Your task to perform on an android device: open sync settings in chrome Image 0: 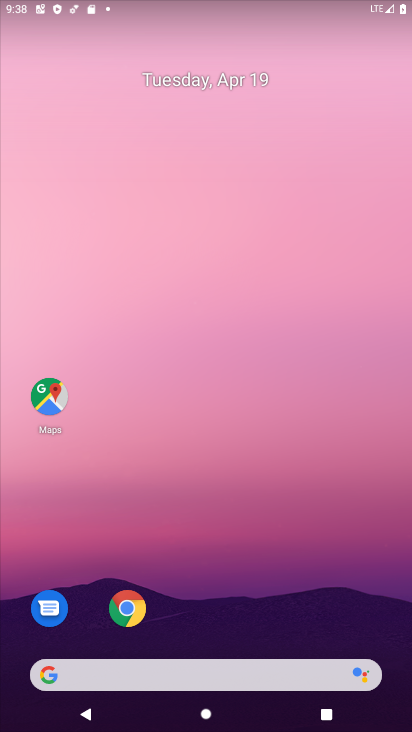
Step 0: click (126, 612)
Your task to perform on an android device: open sync settings in chrome Image 1: 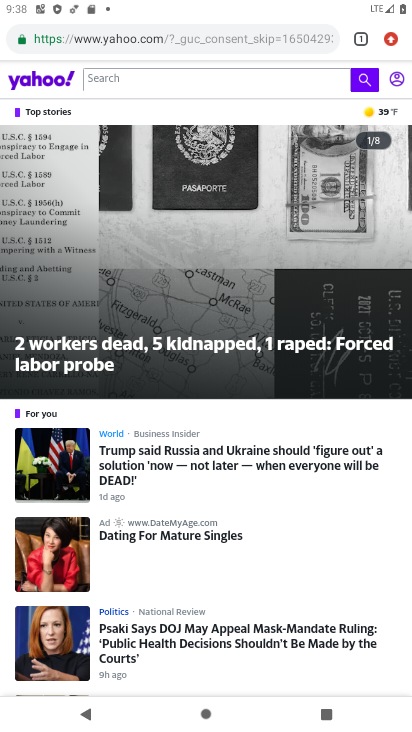
Step 1: click (390, 39)
Your task to perform on an android device: open sync settings in chrome Image 2: 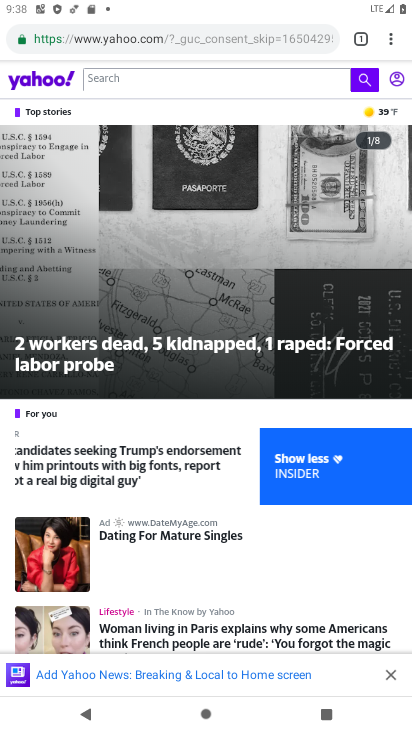
Step 2: click (391, 42)
Your task to perform on an android device: open sync settings in chrome Image 3: 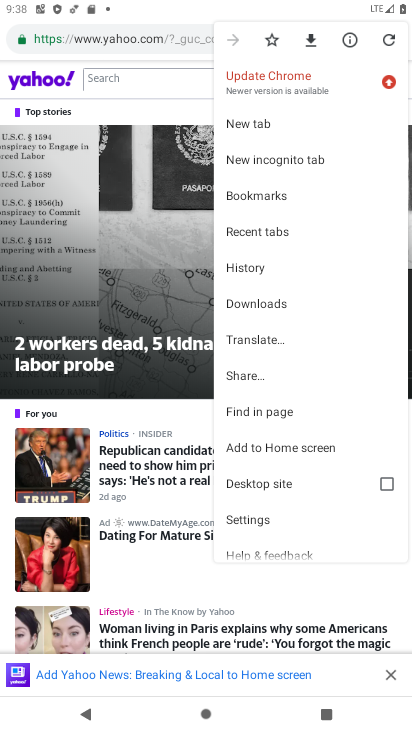
Step 3: click (255, 521)
Your task to perform on an android device: open sync settings in chrome Image 4: 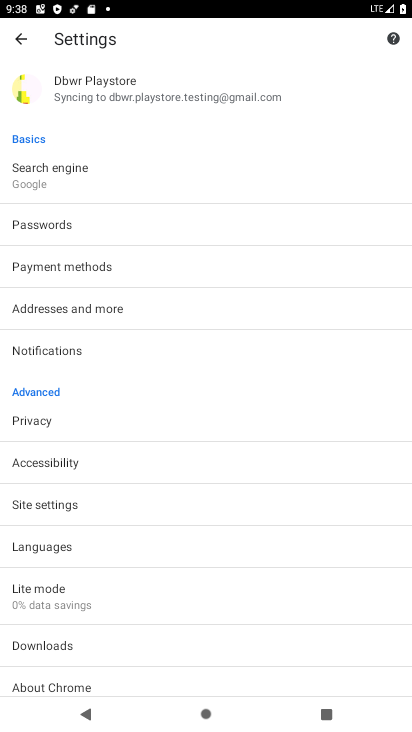
Step 4: click (79, 83)
Your task to perform on an android device: open sync settings in chrome Image 5: 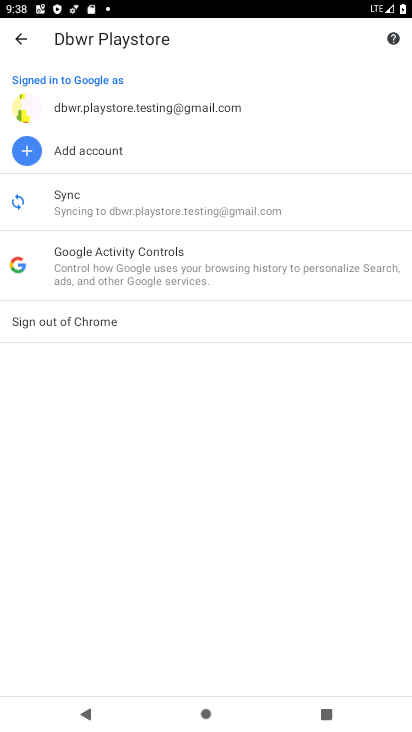
Step 5: click (70, 203)
Your task to perform on an android device: open sync settings in chrome Image 6: 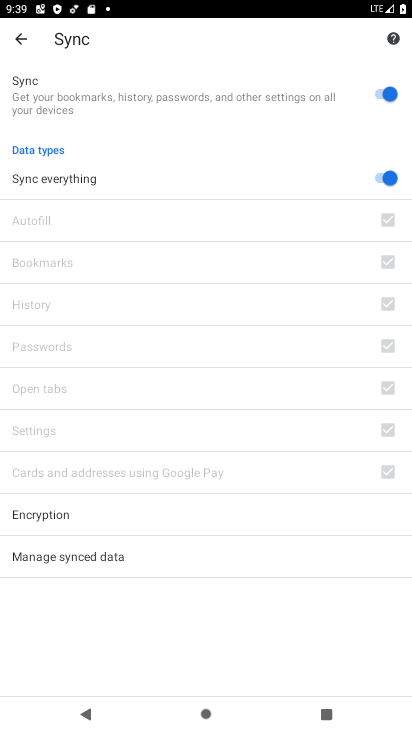
Step 6: task complete